Your task to perform on an android device: check storage Image 0: 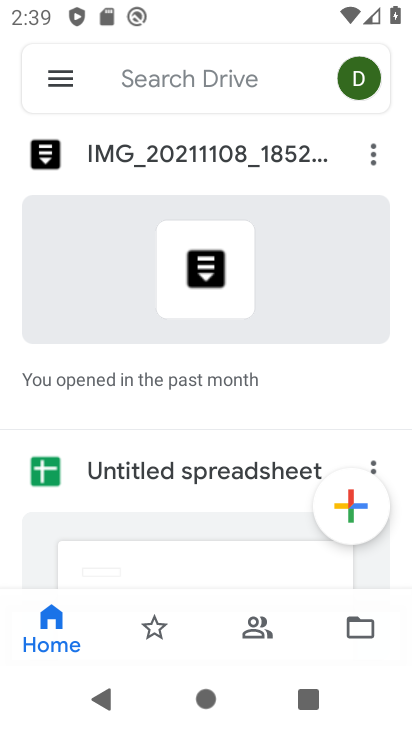
Step 0: press home button
Your task to perform on an android device: check storage Image 1: 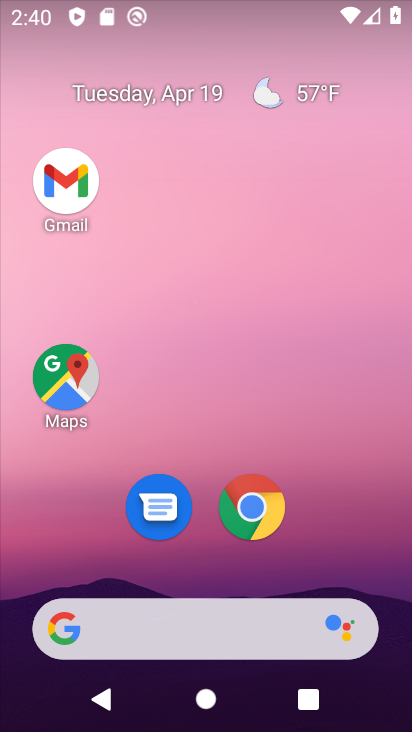
Step 1: drag from (224, 577) to (276, 258)
Your task to perform on an android device: check storage Image 2: 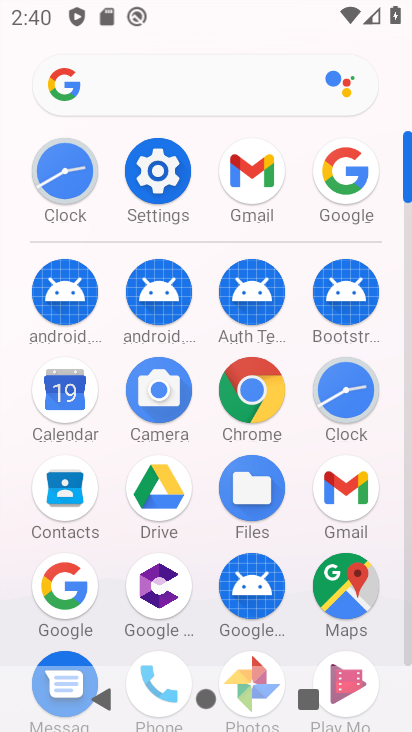
Step 2: click (158, 170)
Your task to perform on an android device: check storage Image 3: 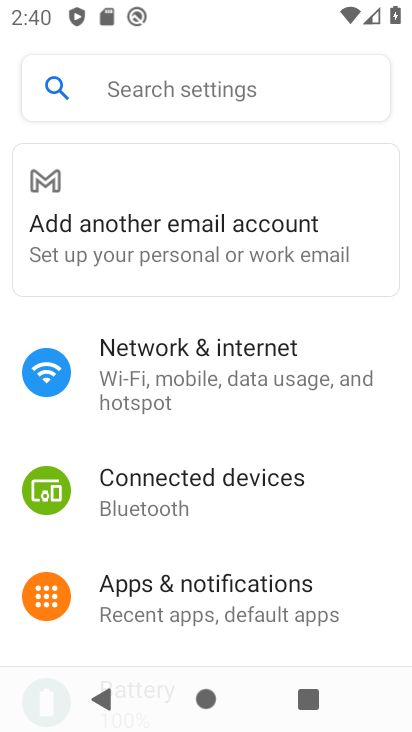
Step 3: drag from (214, 554) to (248, 213)
Your task to perform on an android device: check storage Image 4: 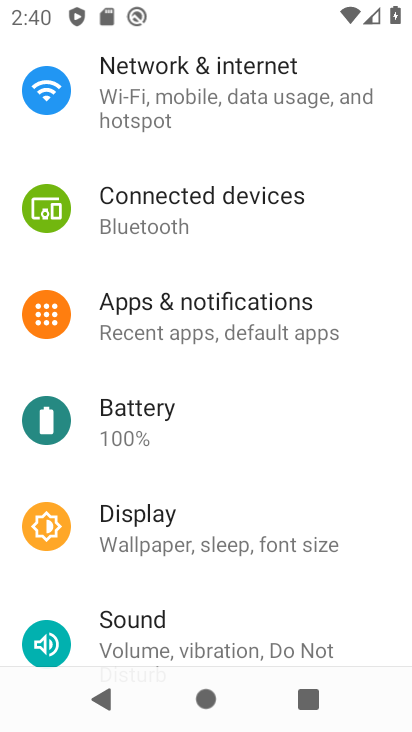
Step 4: drag from (204, 582) to (275, 243)
Your task to perform on an android device: check storage Image 5: 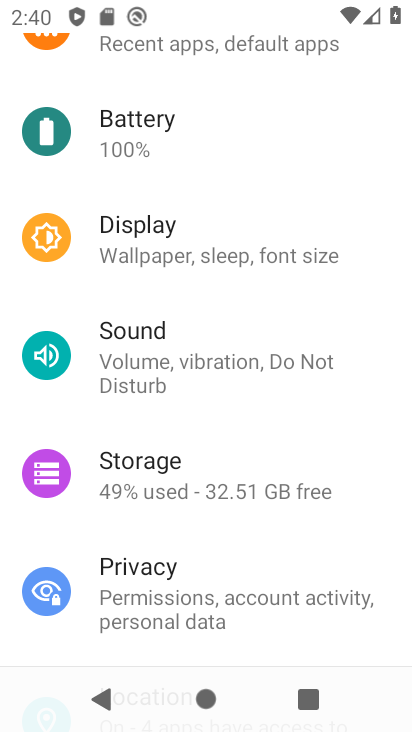
Step 5: click (137, 479)
Your task to perform on an android device: check storage Image 6: 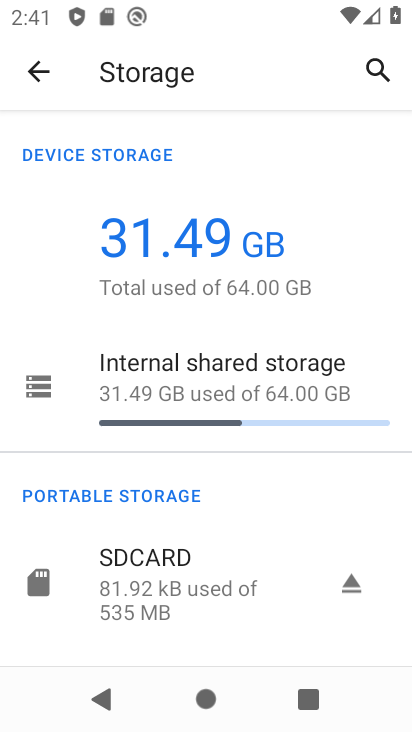
Step 6: task complete